Your task to perform on an android device: turn on the 12-hour format for clock Image 0: 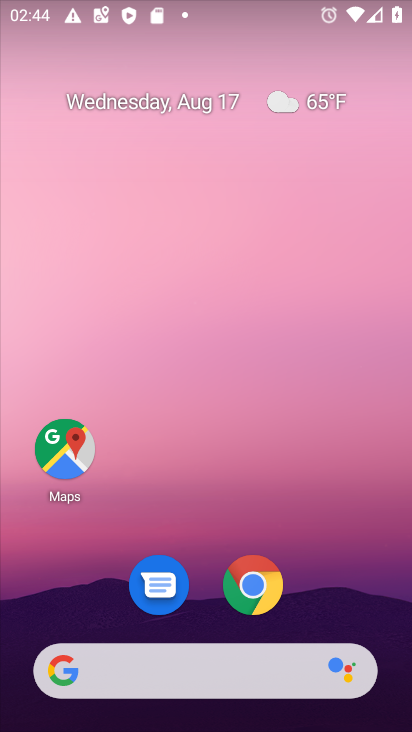
Step 0: drag from (223, 506) to (258, 0)
Your task to perform on an android device: turn on the 12-hour format for clock Image 1: 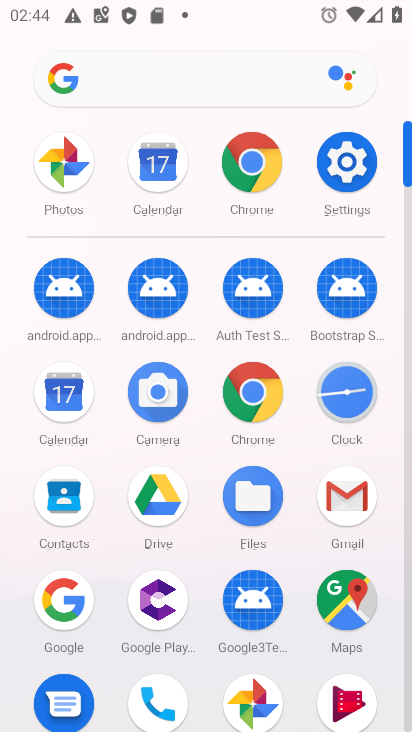
Step 1: click (340, 393)
Your task to perform on an android device: turn on the 12-hour format for clock Image 2: 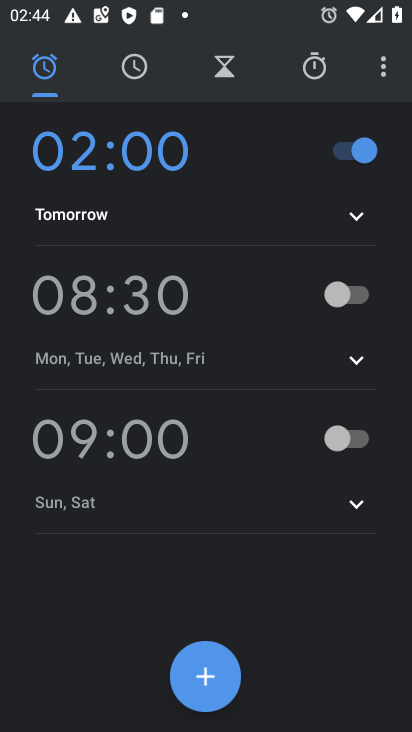
Step 2: click (381, 73)
Your task to perform on an android device: turn on the 12-hour format for clock Image 3: 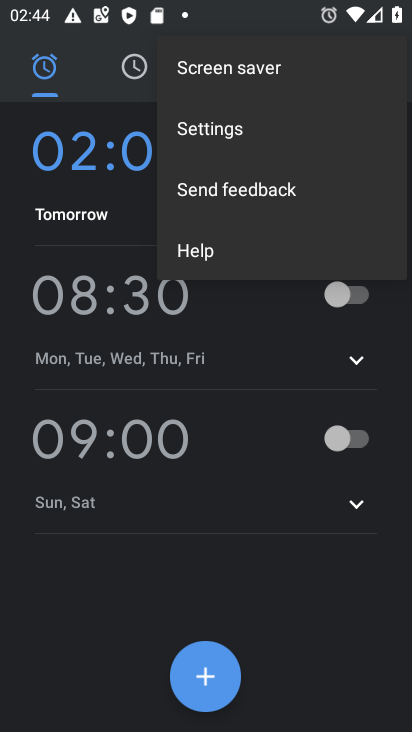
Step 3: click (247, 131)
Your task to perform on an android device: turn on the 12-hour format for clock Image 4: 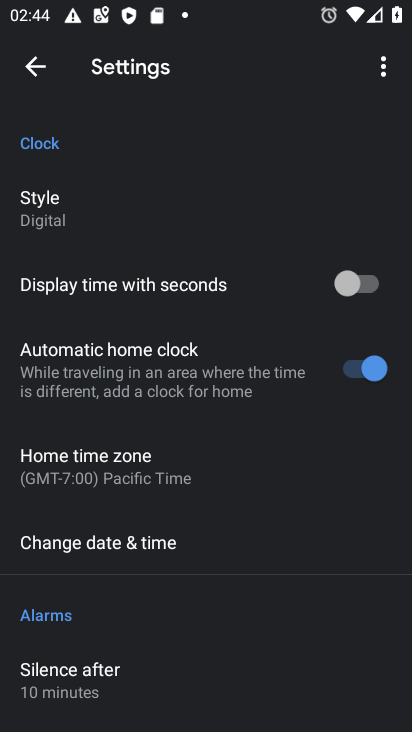
Step 4: drag from (228, 550) to (249, 179)
Your task to perform on an android device: turn on the 12-hour format for clock Image 5: 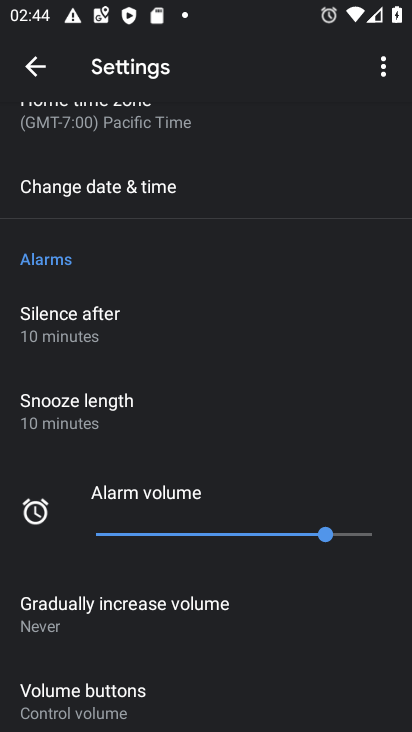
Step 5: click (247, 191)
Your task to perform on an android device: turn on the 12-hour format for clock Image 6: 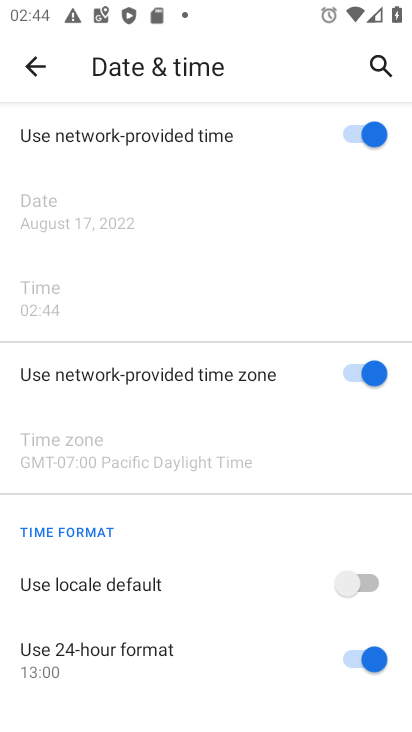
Step 6: click (359, 578)
Your task to perform on an android device: turn on the 12-hour format for clock Image 7: 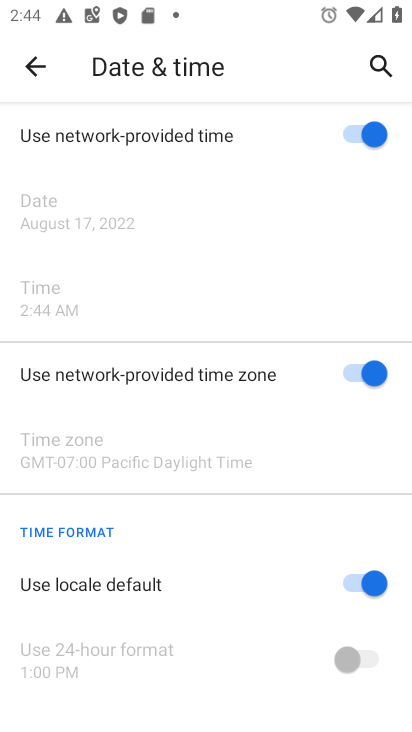
Step 7: task complete